Your task to perform on an android device: empty trash in the gmail app Image 0: 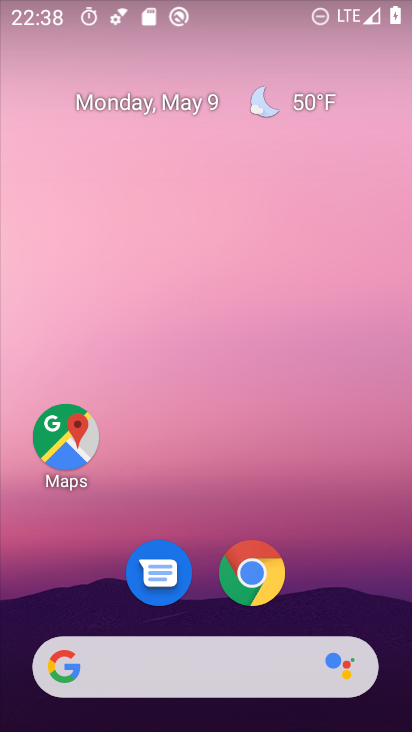
Step 0: drag from (343, 567) to (354, 145)
Your task to perform on an android device: empty trash in the gmail app Image 1: 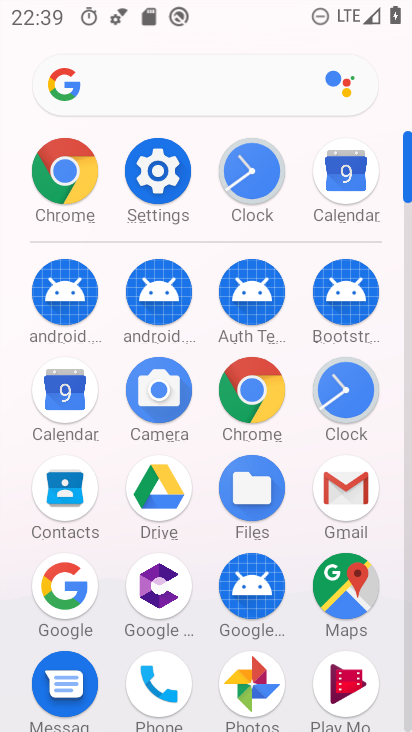
Step 1: click (339, 499)
Your task to perform on an android device: empty trash in the gmail app Image 2: 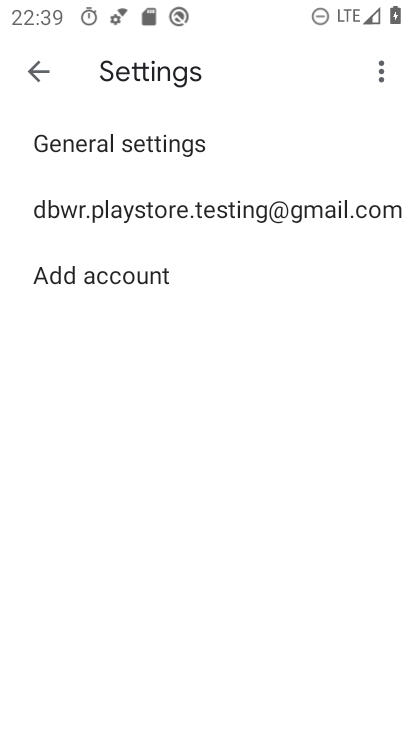
Step 2: click (240, 205)
Your task to perform on an android device: empty trash in the gmail app Image 3: 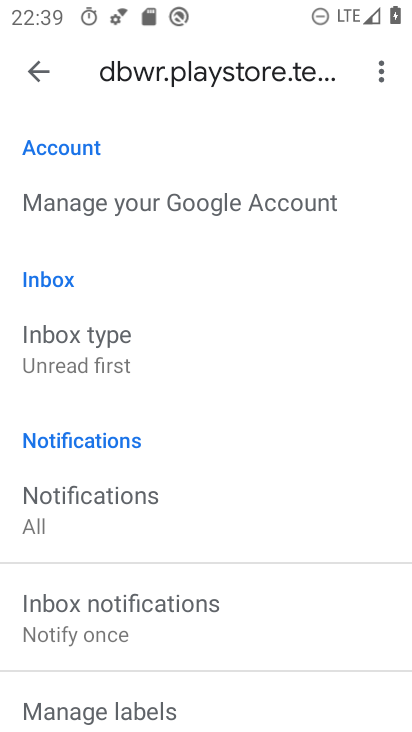
Step 3: click (35, 67)
Your task to perform on an android device: empty trash in the gmail app Image 4: 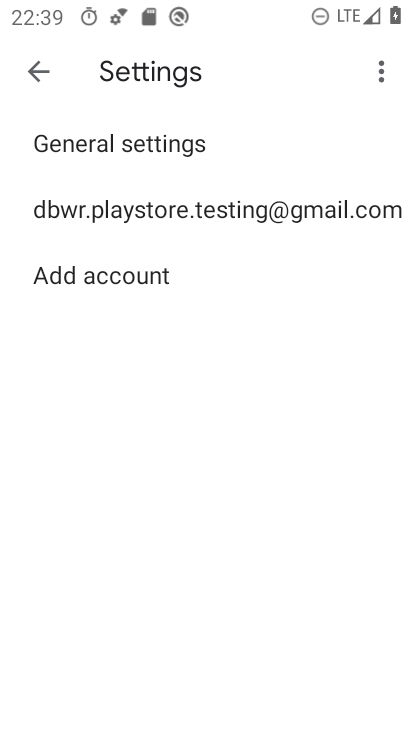
Step 4: click (35, 67)
Your task to perform on an android device: empty trash in the gmail app Image 5: 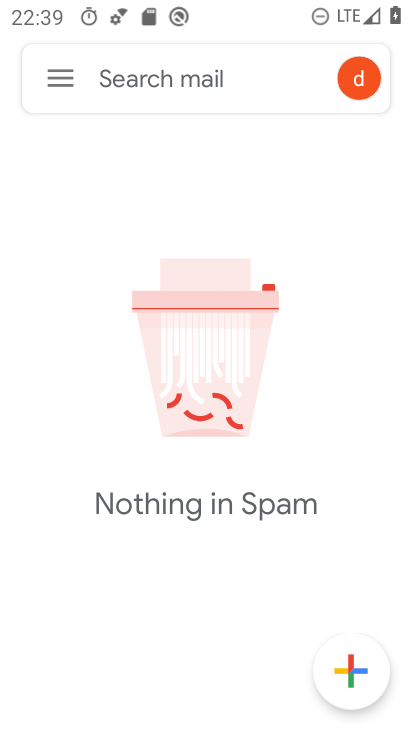
Step 5: click (38, 67)
Your task to perform on an android device: empty trash in the gmail app Image 6: 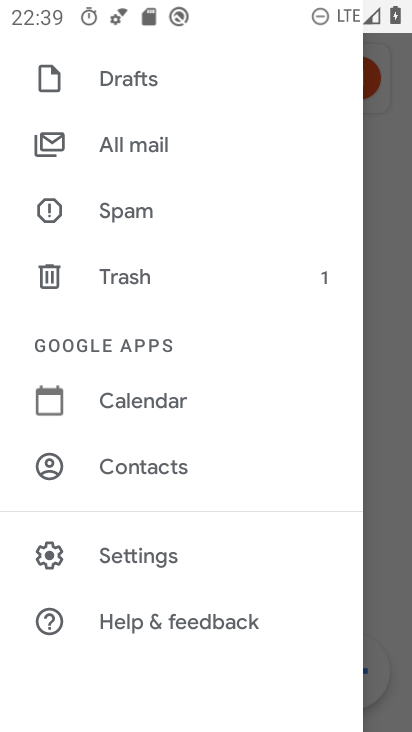
Step 6: click (140, 275)
Your task to perform on an android device: empty trash in the gmail app Image 7: 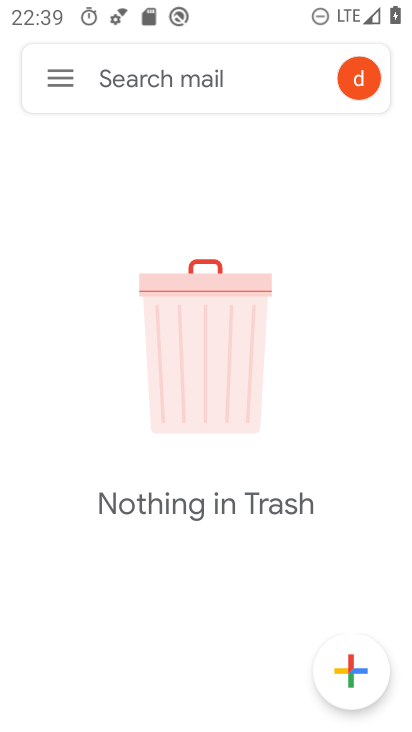
Step 7: task complete